Your task to perform on an android device: Show me the alarms in the clock app Image 0: 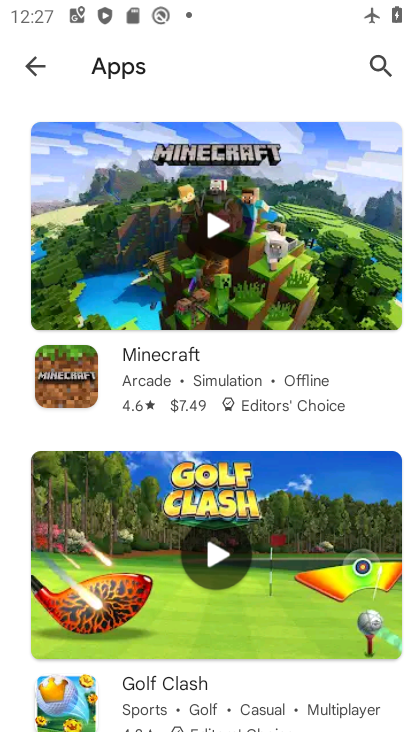
Step 0: press home button
Your task to perform on an android device: Show me the alarms in the clock app Image 1: 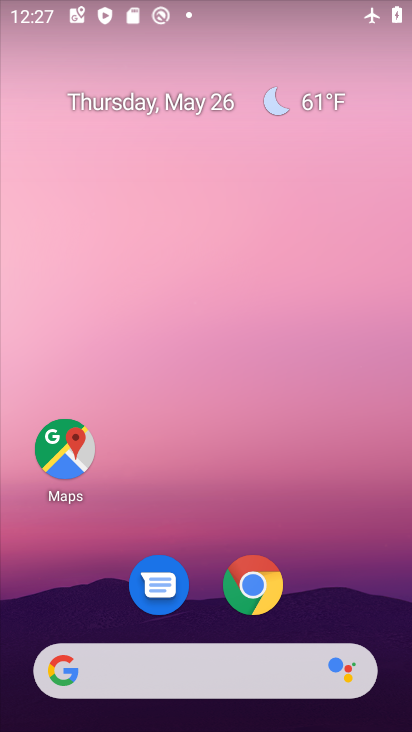
Step 1: drag from (228, 511) to (220, 67)
Your task to perform on an android device: Show me the alarms in the clock app Image 2: 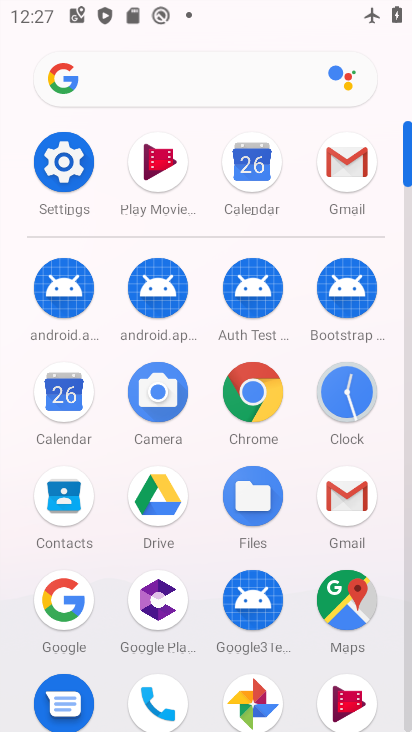
Step 2: click (344, 377)
Your task to perform on an android device: Show me the alarms in the clock app Image 3: 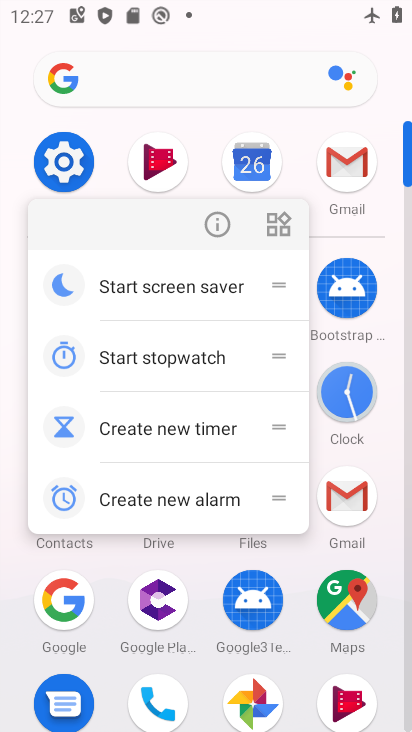
Step 3: click (346, 387)
Your task to perform on an android device: Show me the alarms in the clock app Image 4: 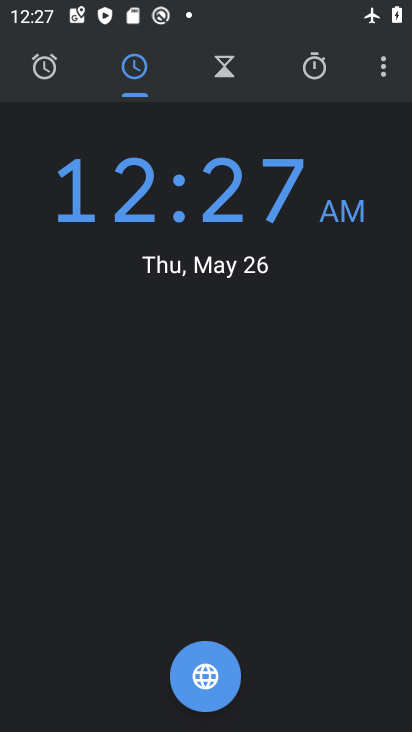
Step 4: click (50, 70)
Your task to perform on an android device: Show me the alarms in the clock app Image 5: 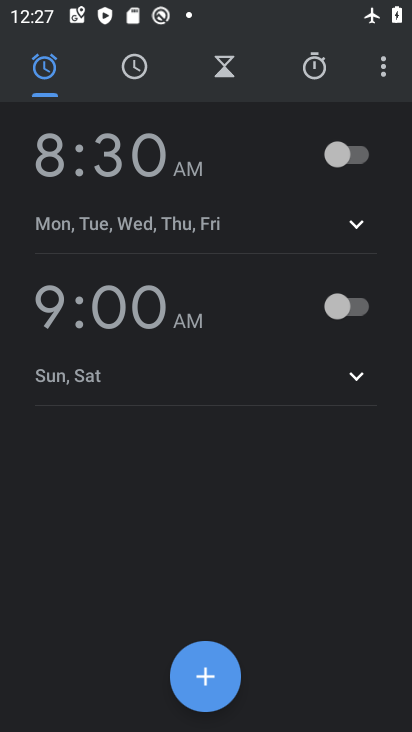
Step 5: task complete